Your task to perform on an android device: Search for Italian restaurants on Maps Image 0: 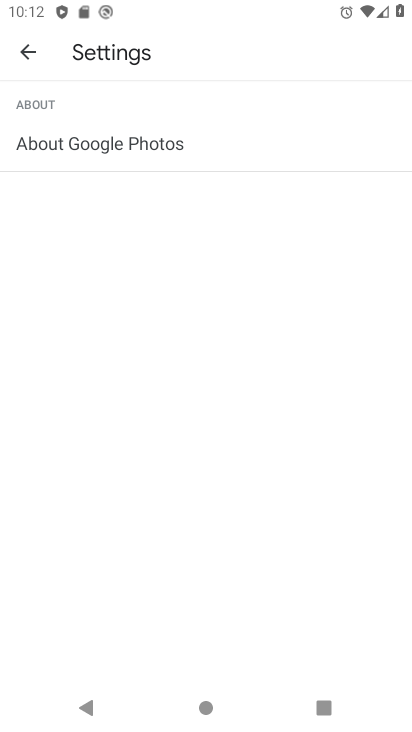
Step 0: press home button
Your task to perform on an android device: Search for Italian restaurants on Maps Image 1: 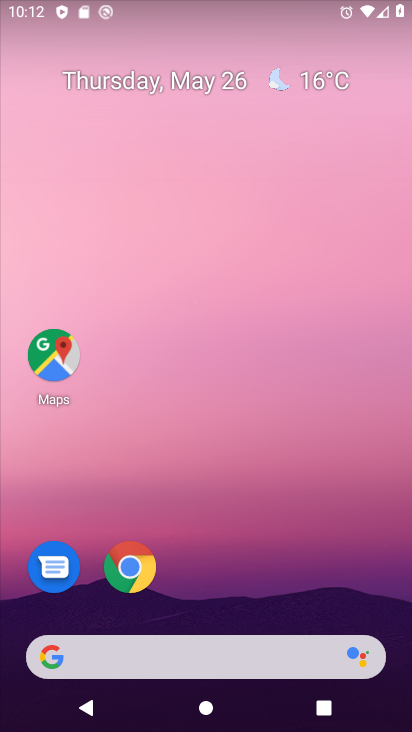
Step 1: drag from (393, 713) to (263, 176)
Your task to perform on an android device: Search for Italian restaurants on Maps Image 2: 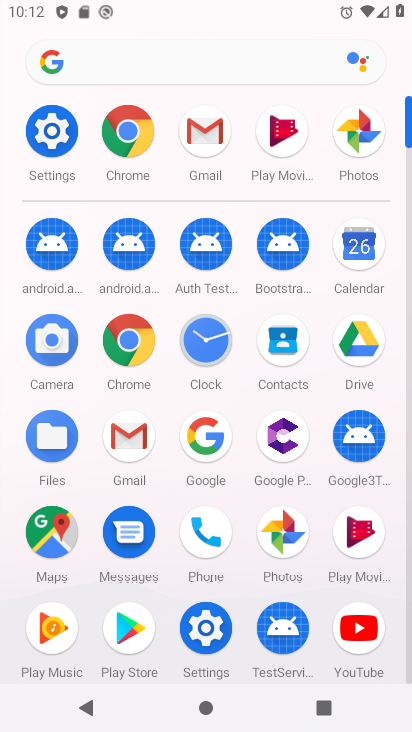
Step 2: click (60, 525)
Your task to perform on an android device: Search for Italian restaurants on Maps Image 3: 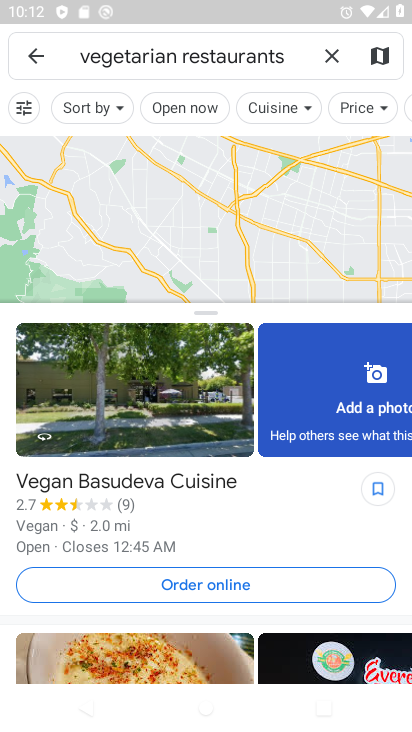
Step 3: click (328, 54)
Your task to perform on an android device: Search for Italian restaurants on Maps Image 4: 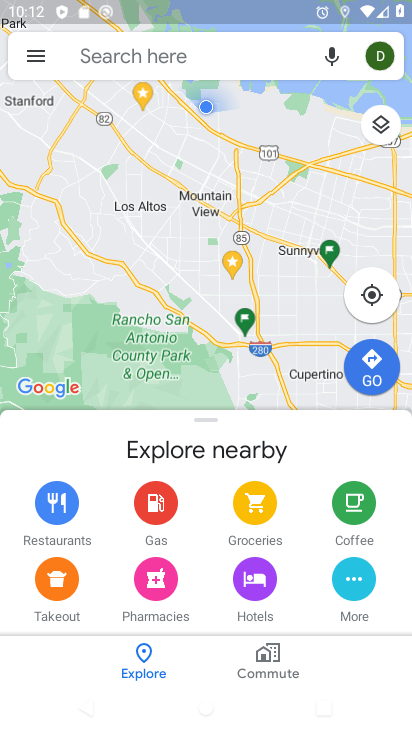
Step 4: click (195, 51)
Your task to perform on an android device: Search for Italian restaurants on Maps Image 5: 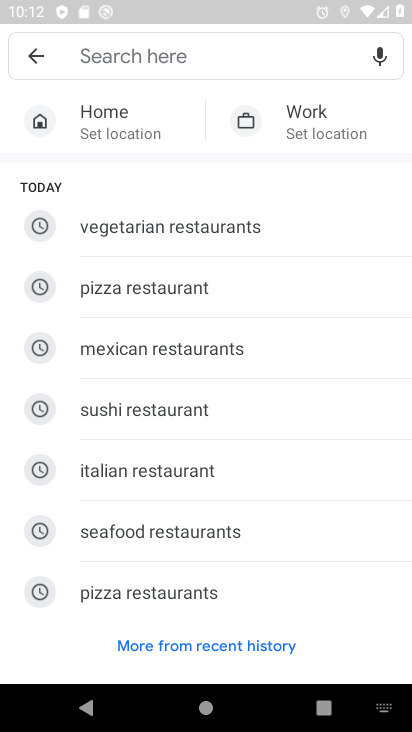
Step 5: type "Italian restaurants "
Your task to perform on an android device: Search for Italian restaurants on Maps Image 6: 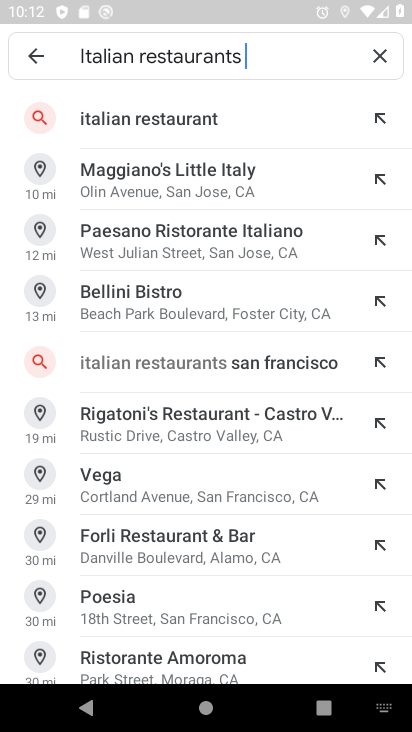
Step 6: click (122, 112)
Your task to perform on an android device: Search for Italian restaurants on Maps Image 7: 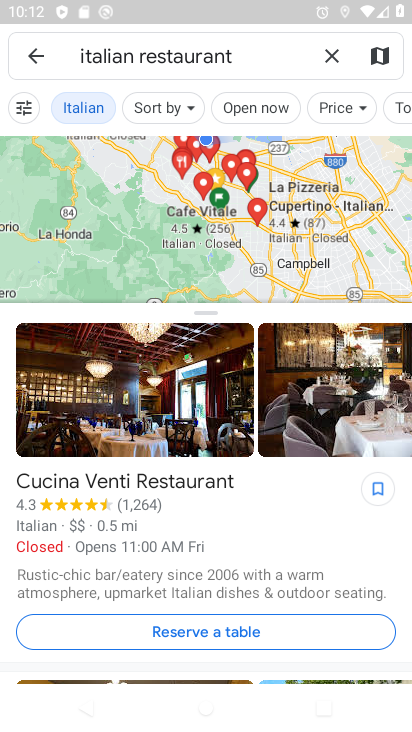
Step 7: task complete